Your task to perform on an android device: add a label to a message in the gmail app Image 0: 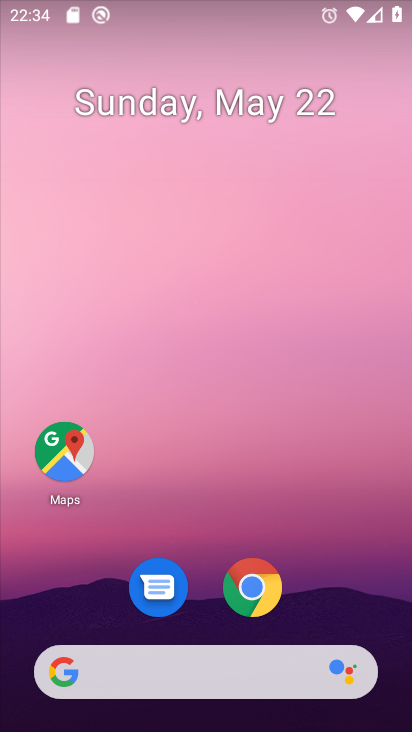
Step 0: drag from (216, 525) to (266, 75)
Your task to perform on an android device: add a label to a message in the gmail app Image 1: 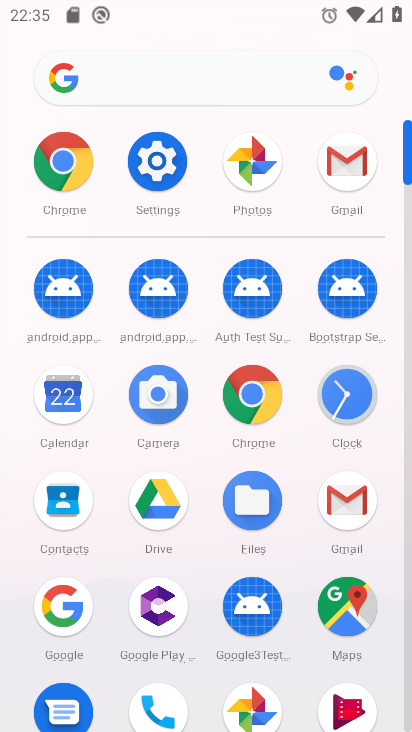
Step 1: click (353, 171)
Your task to perform on an android device: add a label to a message in the gmail app Image 2: 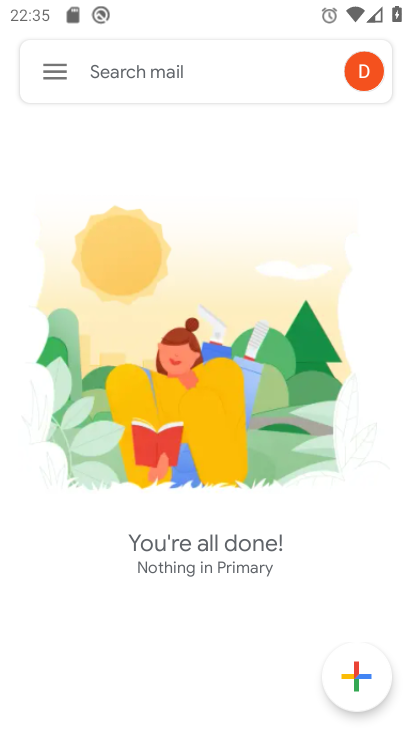
Step 2: click (61, 60)
Your task to perform on an android device: add a label to a message in the gmail app Image 3: 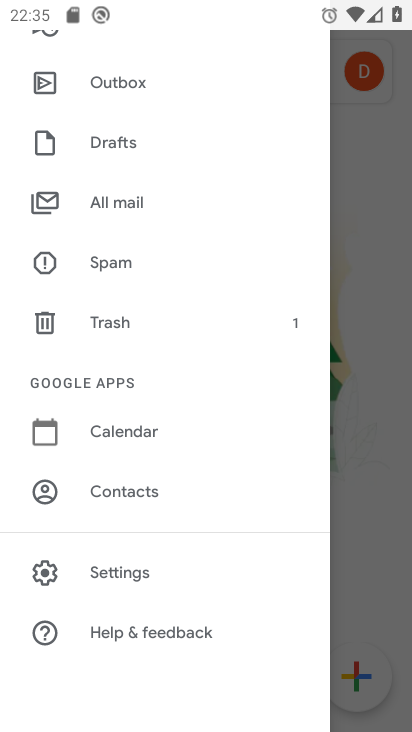
Step 3: click (134, 194)
Your task to perform on an android device: add a label to a message in the gmail app Image 4: 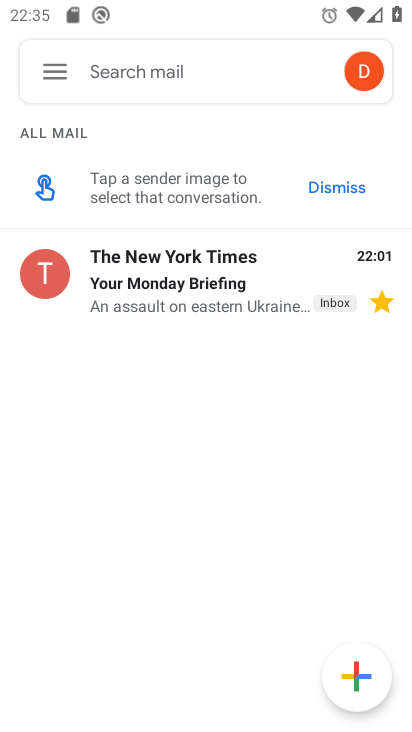
Step 4: click (253, 287)
Your task to perform on an android device: add a label to a message in the gmail app Image 5: 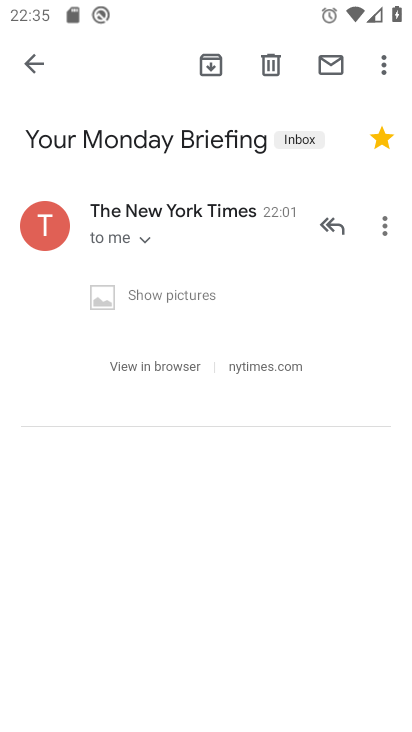
Step 5: click (379, 55)
Your task to perform on an android device: add a label to a message in the gmail app Image 6: 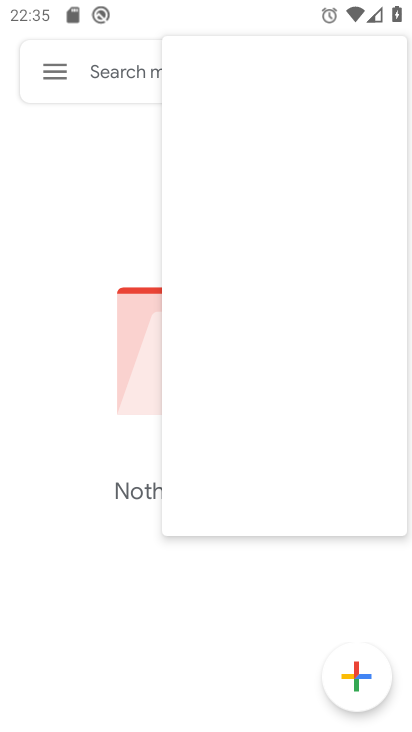
Step 6: click (88, 147)
Your task to perform on an android device: add a label to a message in the gmail app Image 7: 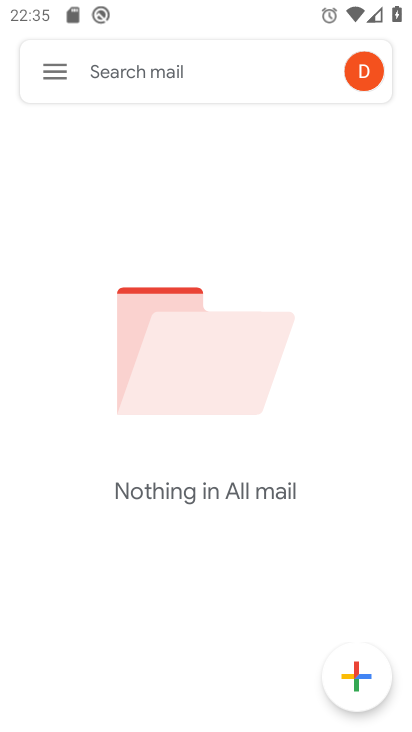
Step 7: task complete